Your task to perform on an android device: Search for seafood restaurants on Google Maps Image 0: 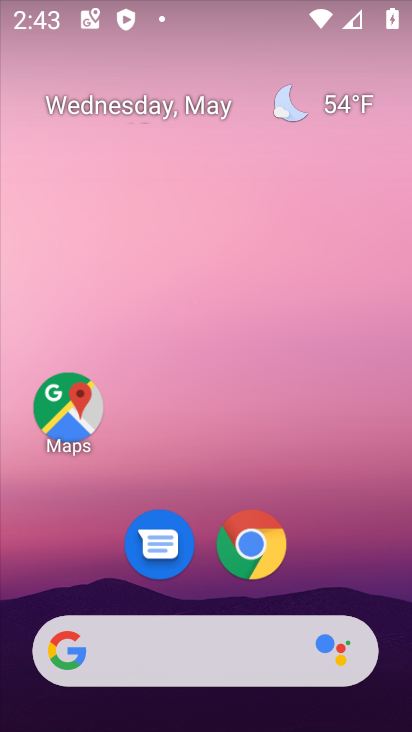
Step 0: drag from (356, 517) to (250, 56)
Your task to perform on an android device: Search for seafood restaurants on Google Maps Image 1: 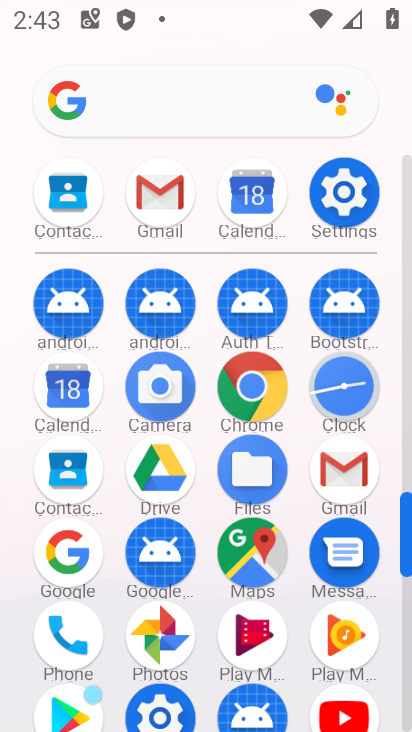
Step 1: click (261, 548)
Your task to perform on an android device: Search for seafood restaurants on Google Maps Image 2: 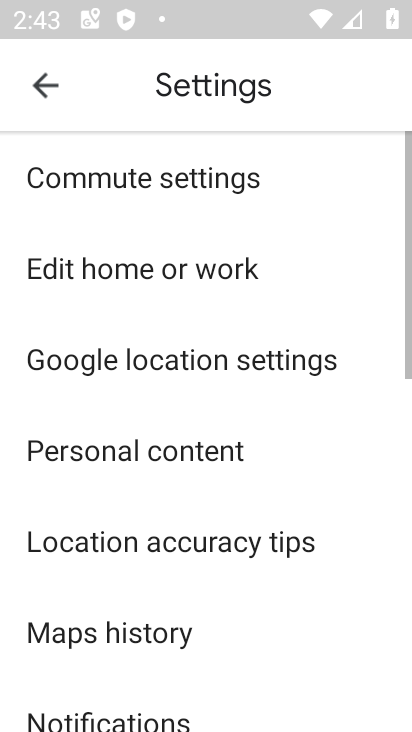
Step 2: click (29, 81)
Your task to perform on an android device: Search for seafood restaurants on Google Maps Image 3: 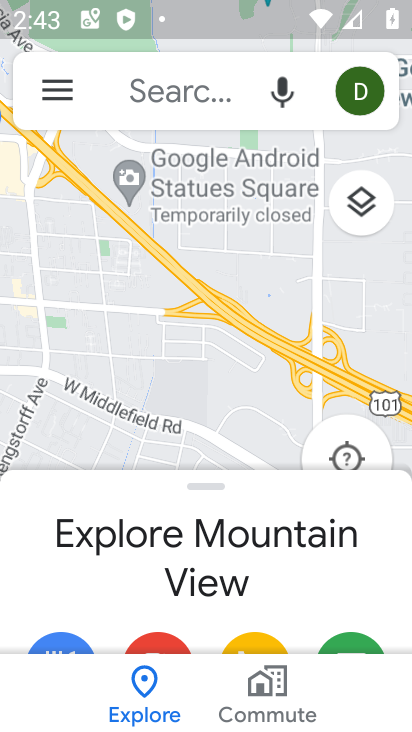
Step 3: click (129, 98)
Your task to perform on an android device: Search for seafood restaurants on Google Maps Image 4: 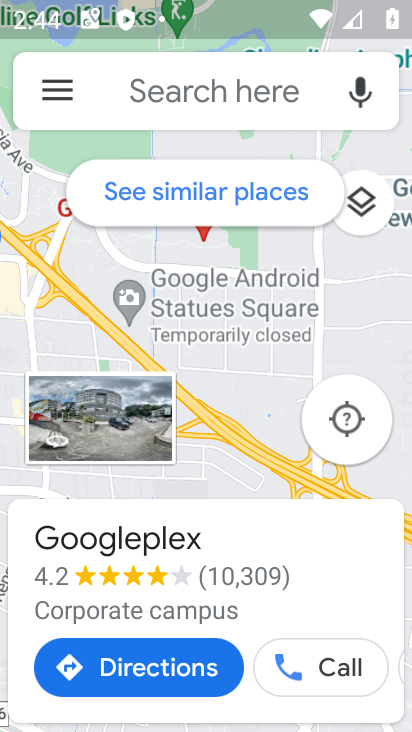
Step 4: type "seafood"
Your task to perform on an android device: Search for seafood restaurants on Google Maps Image 5: 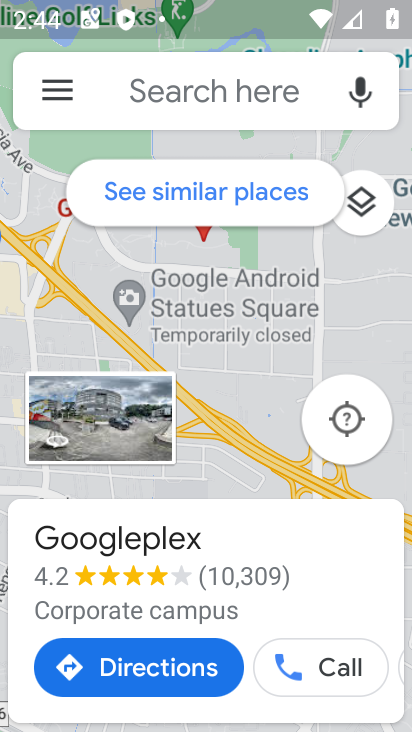
Step 5: click (155, 77)
Your task to perform on an android device: Search for seafood restaurants on Google Maps Image 6: 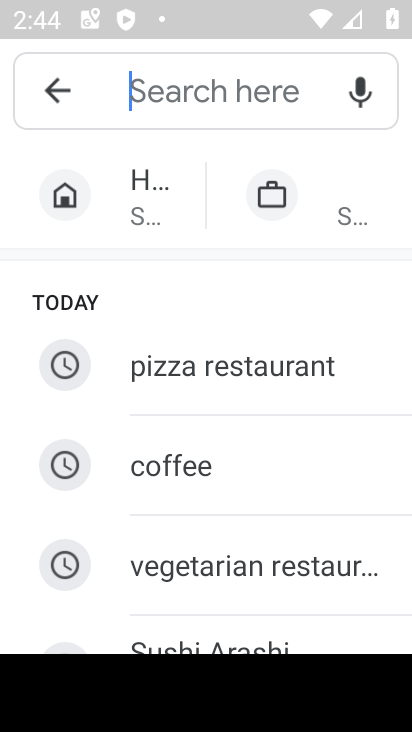
Step 6: type "seafood"
Your task to perform on an android device: Search for seafood restaurants on Google Maps Image 7: 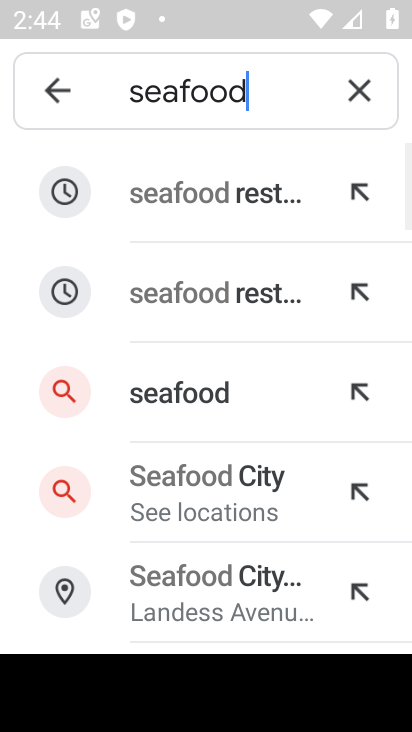
Step 7: click (238, 201)
Your task to perform on an android device: Search for seafood restaurants on Google Maps Image 8: 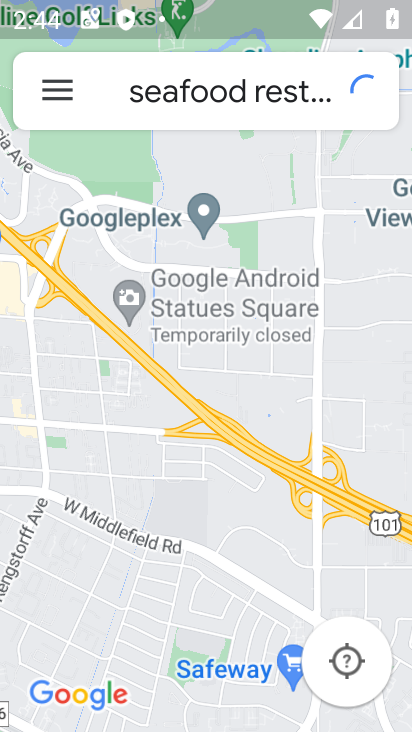
Step 8: task complete